Your task to perform on an android device: turn on javascript in the chrome app Image 0: 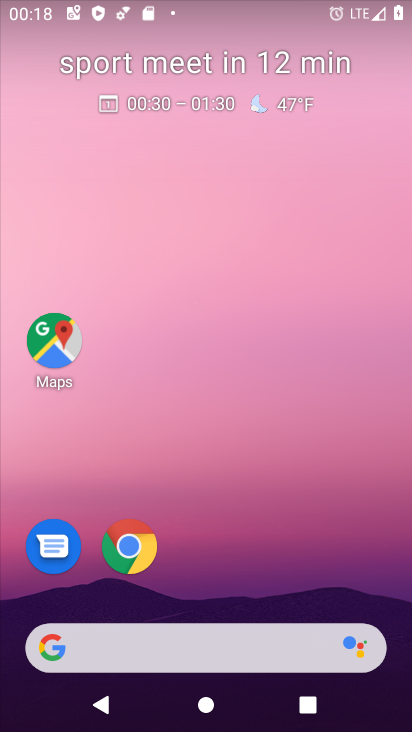
Step 0: click (136, 562)
Your task to perform on an android device: turn on javascript in the chrome app Image 1: 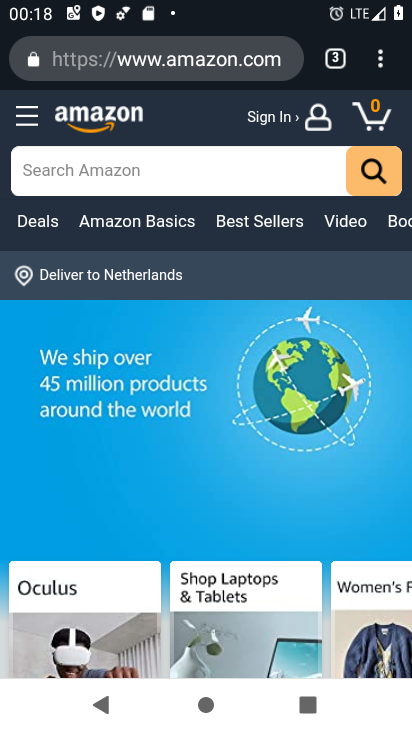
Step 1: click (384, 62)
Your task to perform on an android device: turn on javascript in the chrome app Image 2: 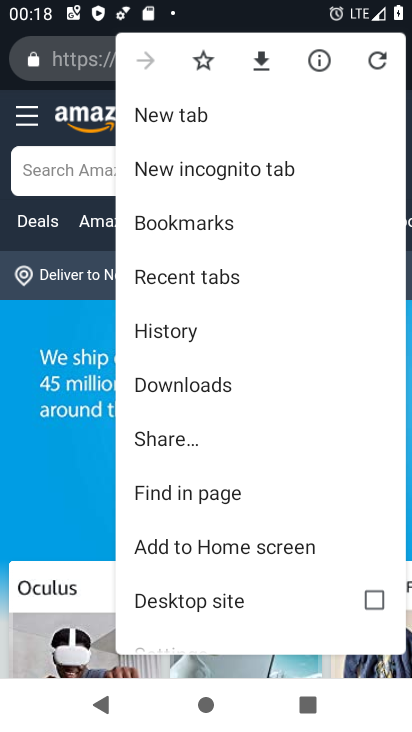
Step 2: drag from (268, 581) to (269, 221)
Your task to perform on an android device: turn on javascript in the chrome app Image 3: 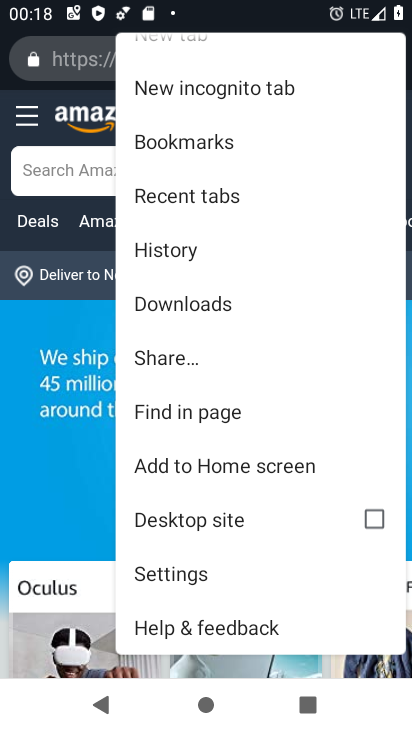
Step 3: click (179, 573)
Your task to perform on an android device: turn on javascript in the chrome app Image 4: 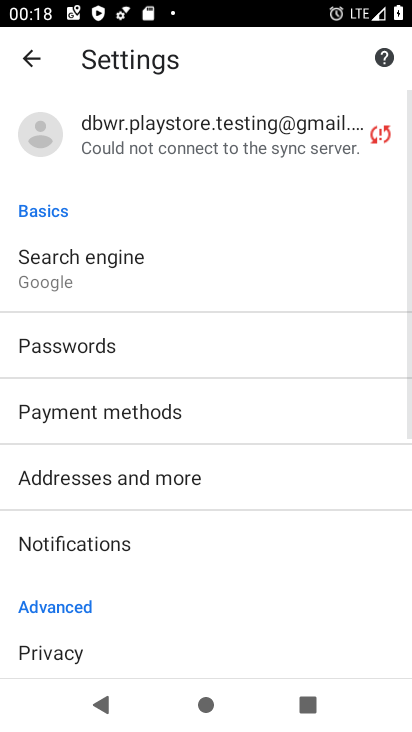
Step 4: drag from (179, 573) to (199, 136)
Your task to perform on an android device: turn on javascript in the chrome app Image 5: 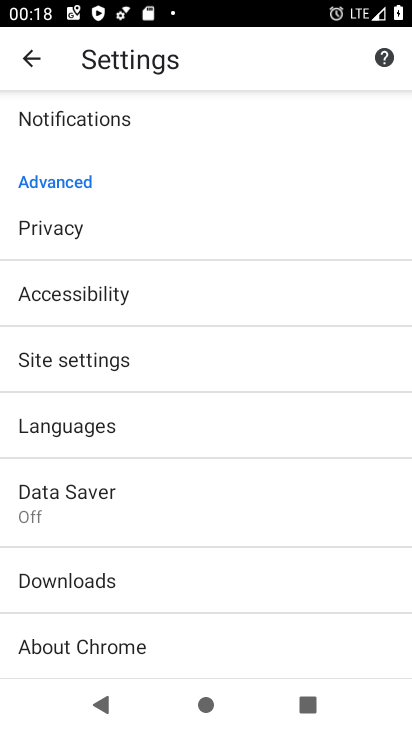
Step 5: click (97, 364)
Your task to perform on an android device: turn on javascript in the chrome app Image 6: 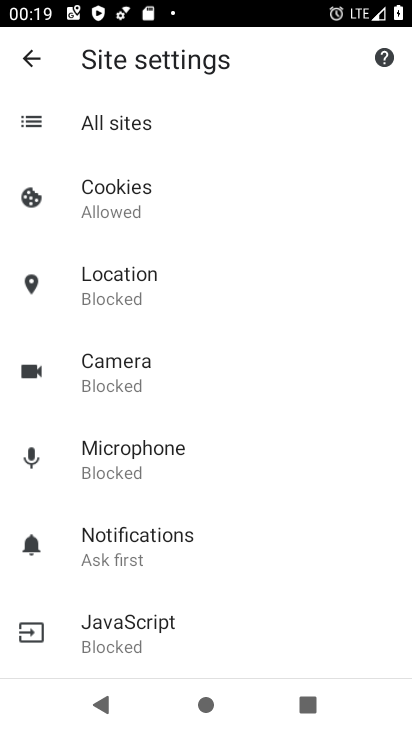
Step 6: click (116, 624)
Your task to perform on an android device: turn on javascript in the chrome app Image 7: 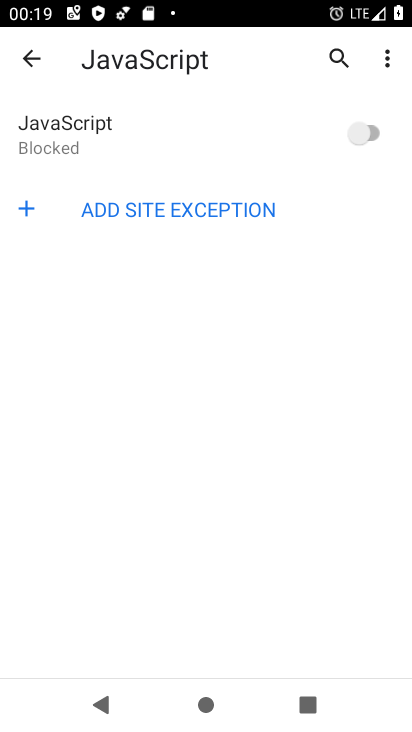
Step 7: click (353, 136)
Your task to perform on an android device: turn on javascript in the chrome app Image 8: 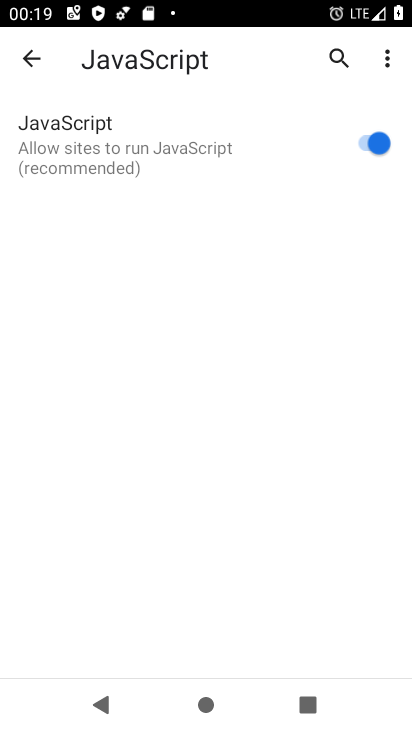
Step 8: task complete